Your task to perform on an android device: turn on bluetooth scan Image 0: 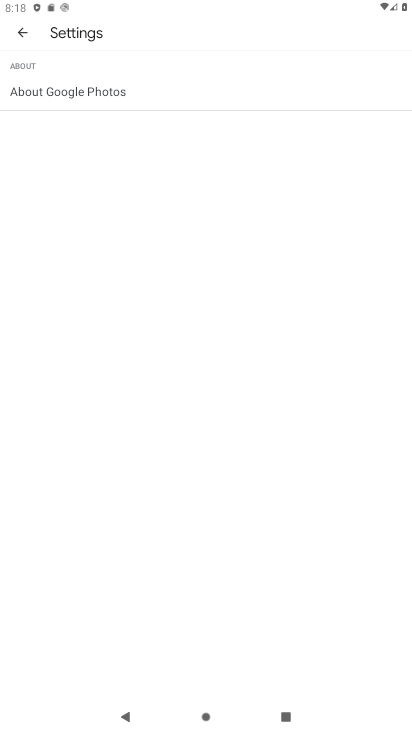
Step 0: press home button
Your task to perform on an android device: turn on bluetooth scan Image 1: 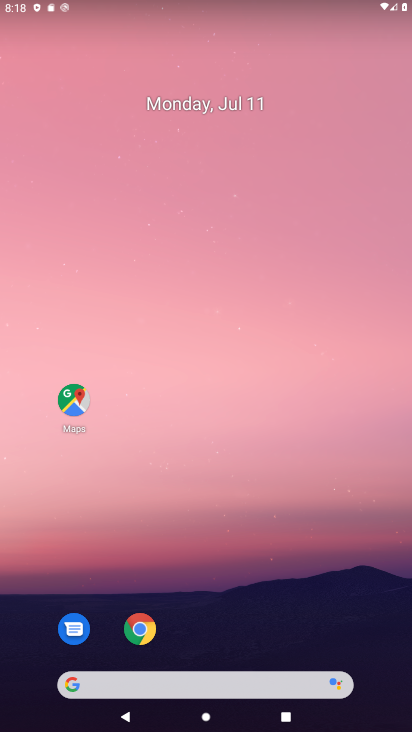
Step 1: drag from (189, 382) to (211, 45)
Your task to perform on an android device: turn on bluetooth scan Image 2: 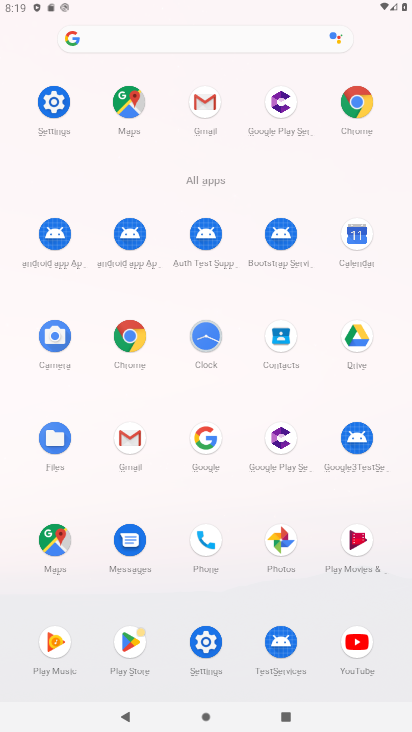
Step 2: click (37, 115)
Your task to perform on an android device: turn on bluetooth scan Image 3: 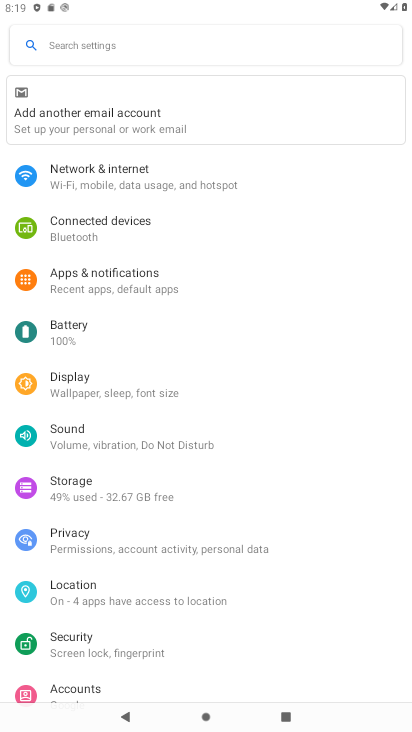
Step 3: click (86, 590)
Your task to perform on an android device: turn on bluetooth scan Image 4: 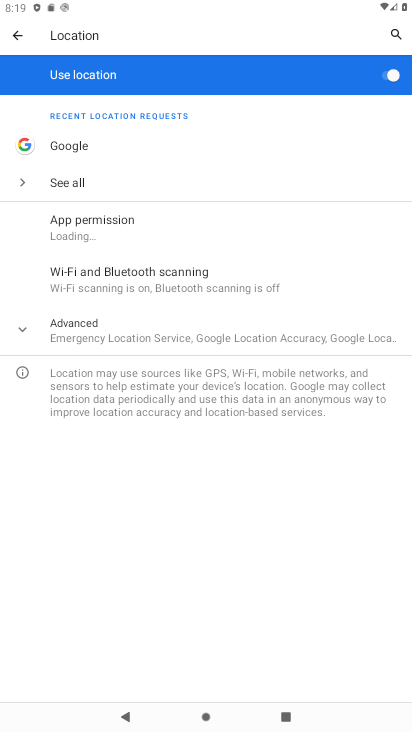
Step 4: click (131, 281)
Your task to perform on an android device: turn on bluetooth scan Image 5: 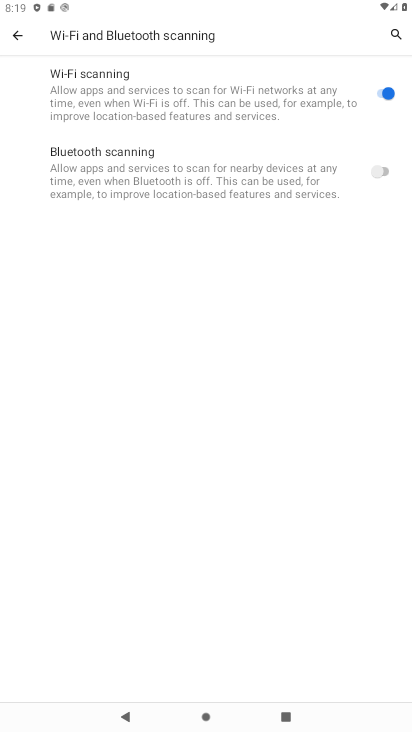
Step 5: click (390, 171)
Your task to perform on an android device: turn on bluetooth scan Image 6: 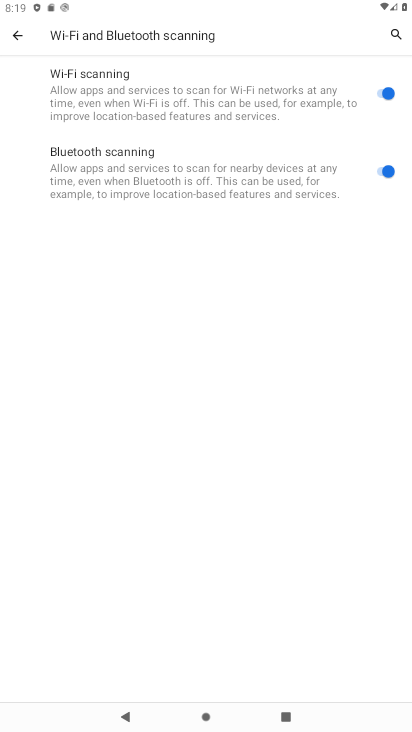
Step 6: task complete